Your task to perform on an android device: Open settings Image 0: 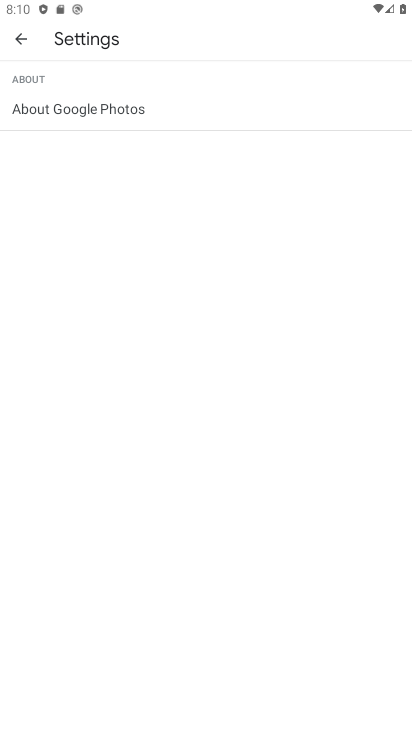
Step 0: press home button
Your task to perform on an android device: Open settings Image 1: 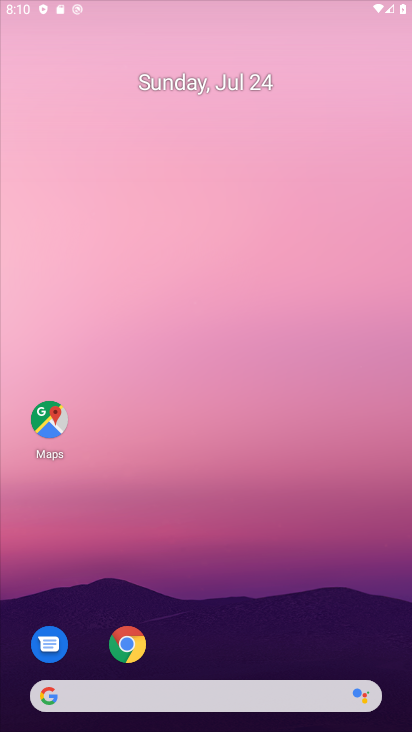
Step 1: drag from (2, 729) to (315, 55)
Your task to perform on an android device: Open settings Image 2: 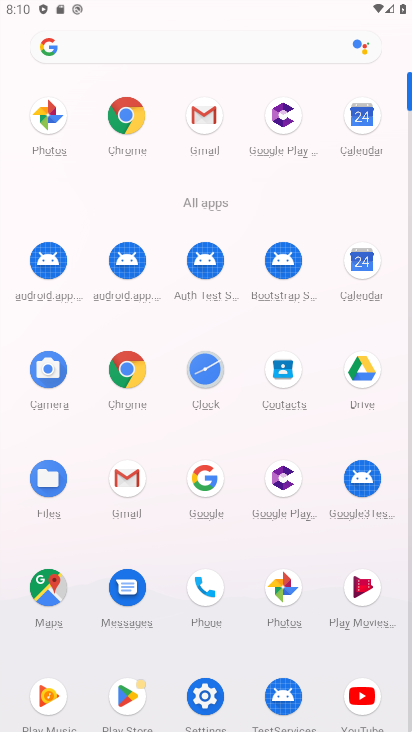
Step 2: click (202, 694)
Your task to perform on an android device: Open settings Image 3: 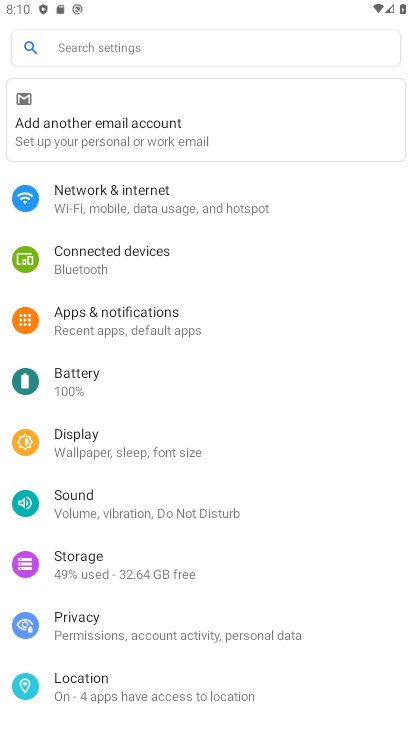
Step 3: task complete